Your task to perform on an android device: change the clock display to analog Image 0: 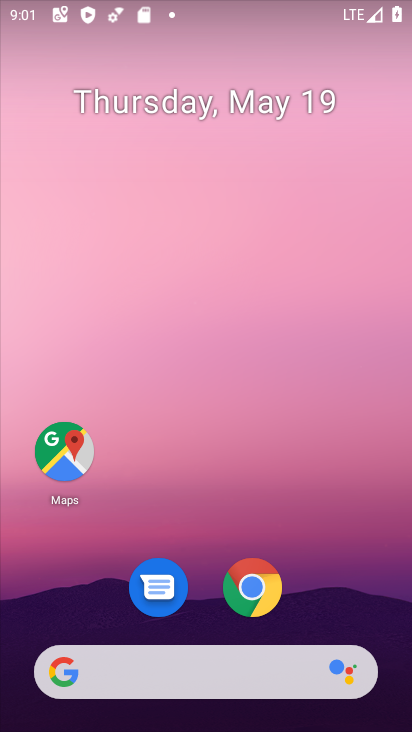
Step 0: drag from (361, 529) to (291, 74)
Your task to perform on an android device: change the clock display to analog Image 1: 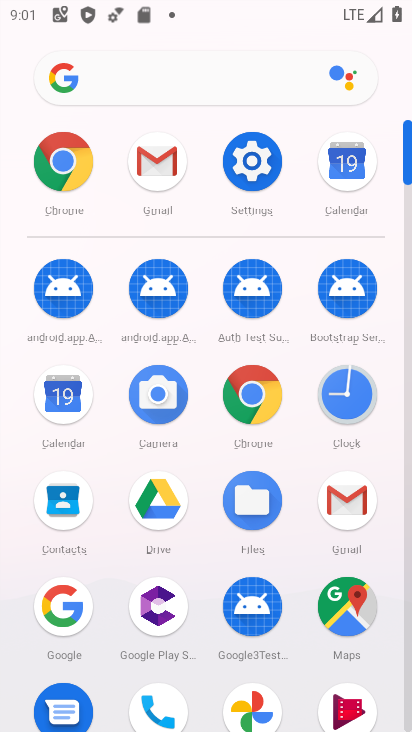
Step 1: drag from (9, 580) to (39, 253)
Your task to perform on an android device: change the clock display to analog Image 2: 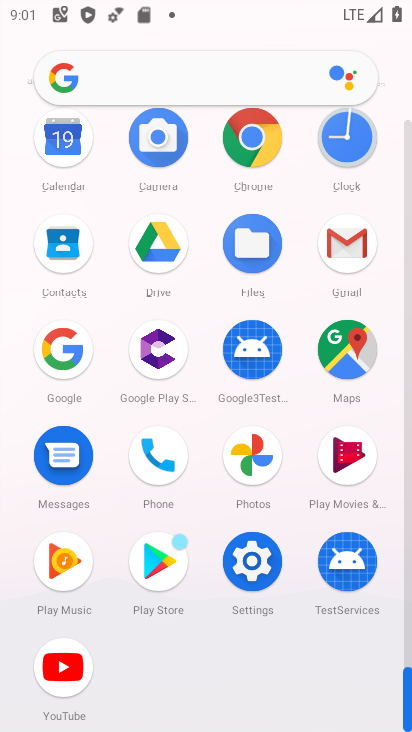
Step 2: drag from (24, 521) to (40, 263)
Your task to perform on an android device: change the clock display to analog Image 3: 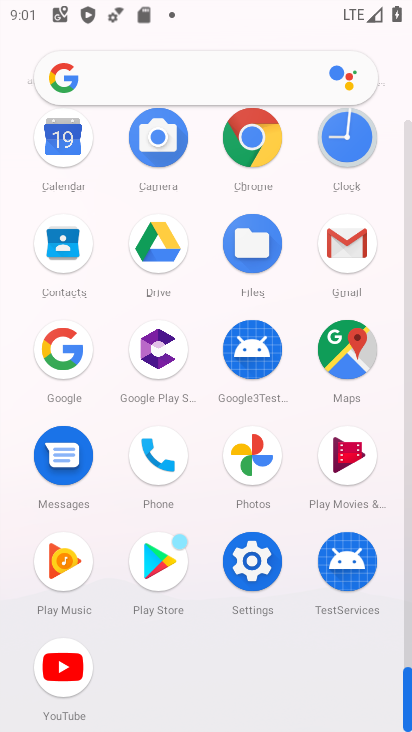
Step 3: click (337, 142)
Your task to perform on an android device: change the clock display to analog Image 4: 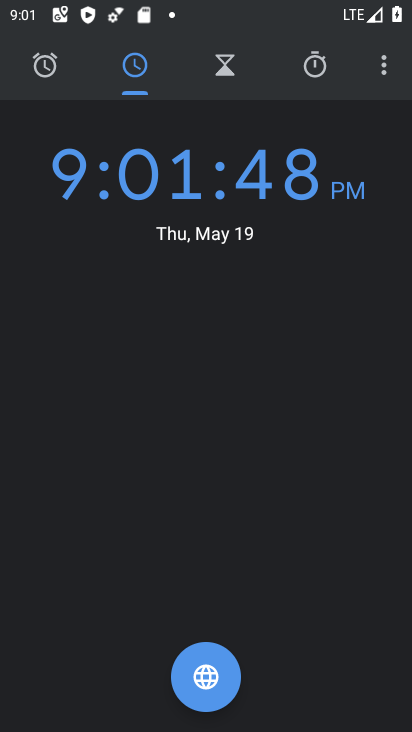
Step 4: drag from (385, 66) to (340, 130)
Your task to perform on an android device: change the clock display to analog Image 5: 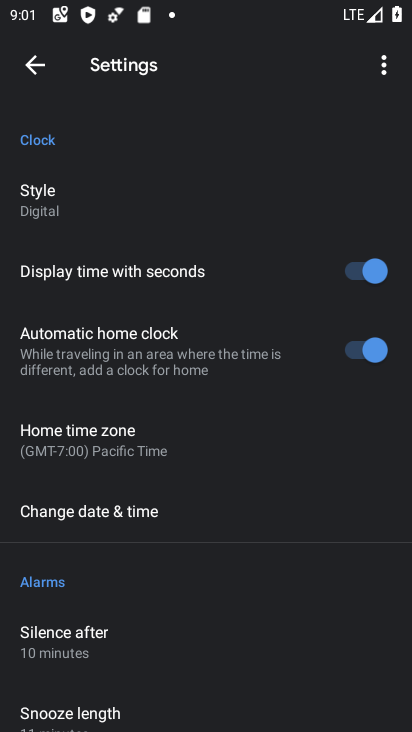
Step 5: click (123, 204)
Your task to perform on an android device: change the clock display to analog Image 6: 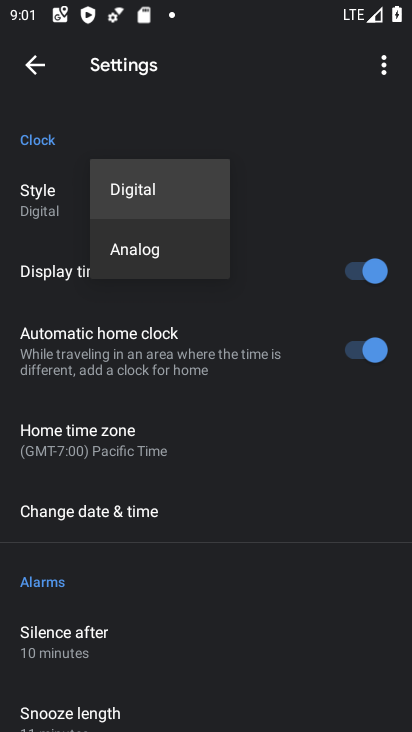
Step 6: click (144, 234)
Your task to perform on an android device: change the clock display to analog Image 7: 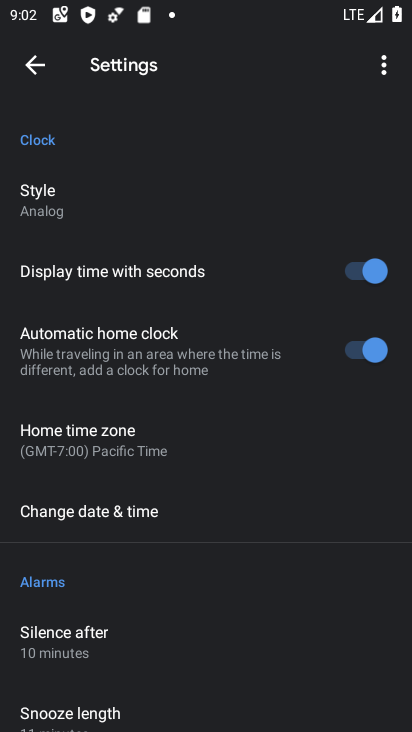
Step 7: task complete